Your task to perform on an android device: check google app version Image 0: 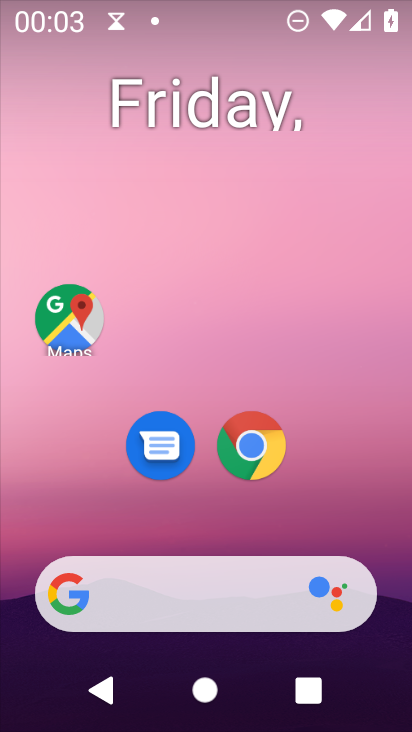
Step 0: drag from (230, 725) to (230, 44)
Your task to perform on an android device: check google app version Image 1: 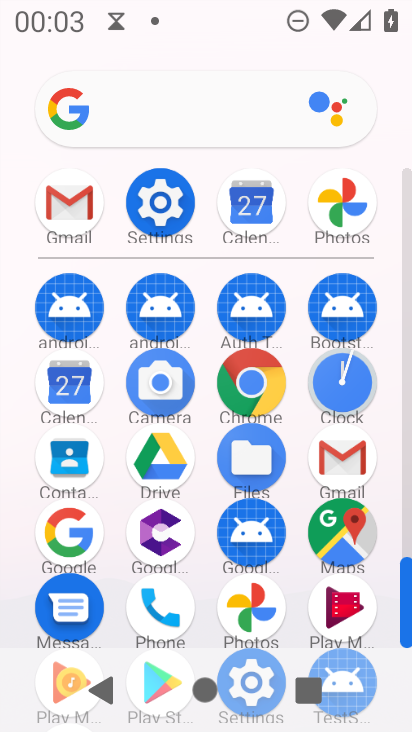
Step 1: click (71, 532)
Your task to perform on an android device: check google app version Image 2: 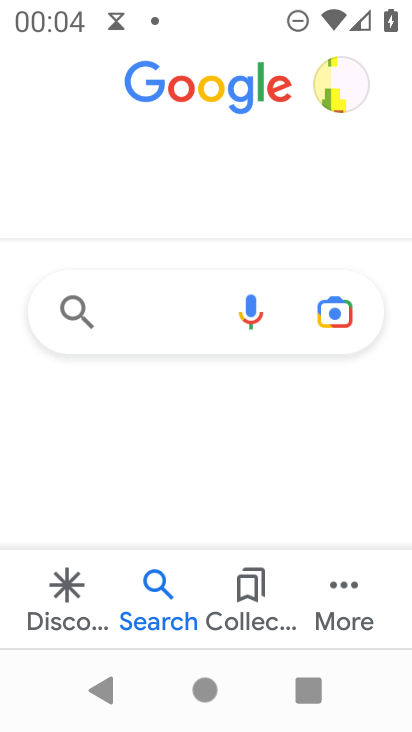
Step 2: click (341, 583)
Your task to perform on an android device: check google app version Image 3: 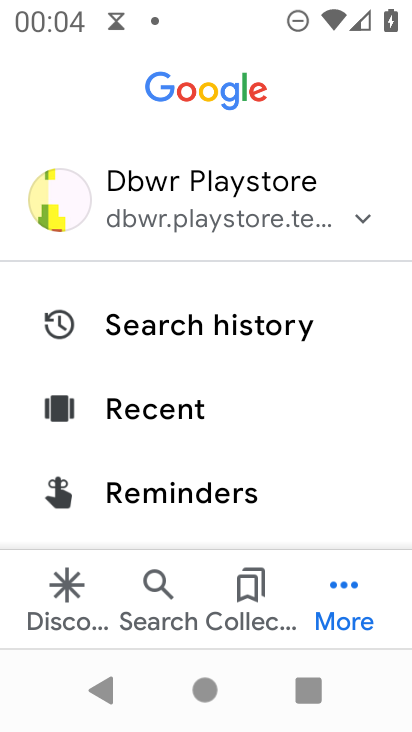
Step 3: drag from (202, 530) to (201, 96)
Your task to perform on an android device: check google app version Image 4: 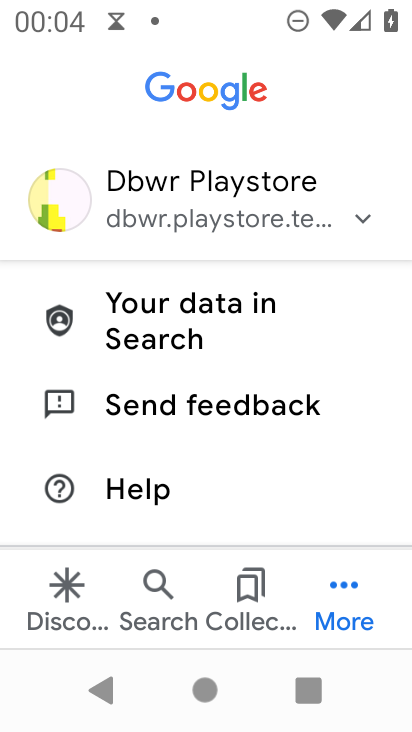
Step 4: drag from (229, 270) to (242, 440)
Your task to perform on an android device: check google app version Image 5: 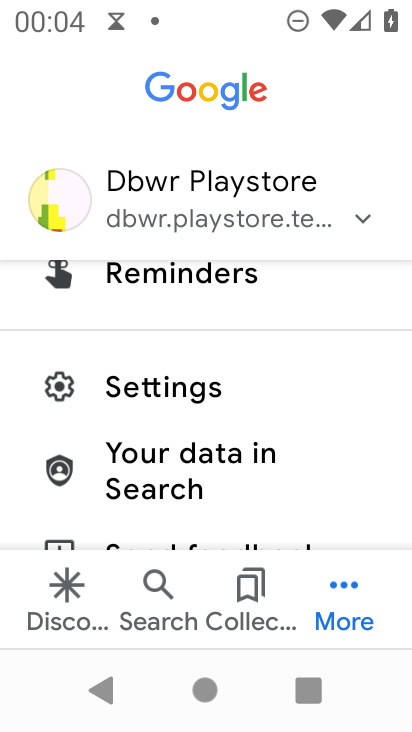
Step 5: click (170, 387)
Your task to perform on an android device: check google app version Image 6: 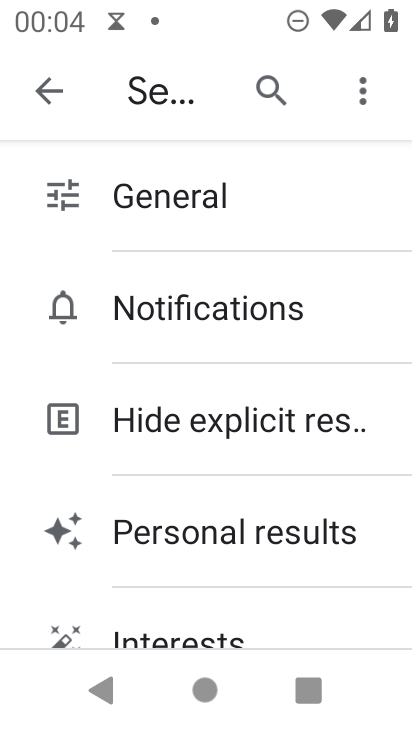
Step 6: drag from (206, 632) to (205, 232)
Your task to perform on an android device: check google app version Image 7: 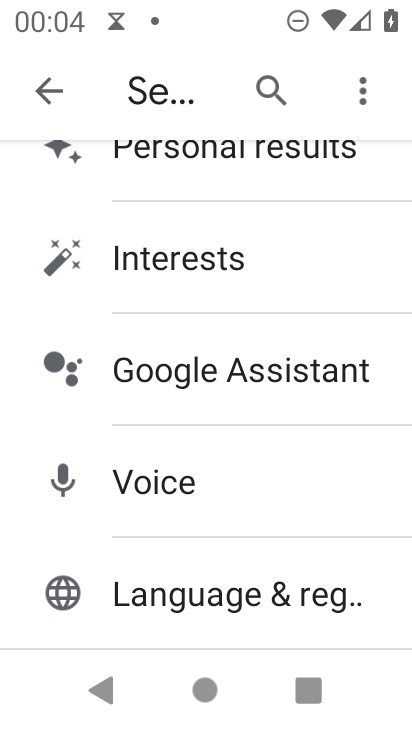
Step 7: drag from (183, 631) to (183, 221)
Your task to perform on an android device: check google app version Image 8: 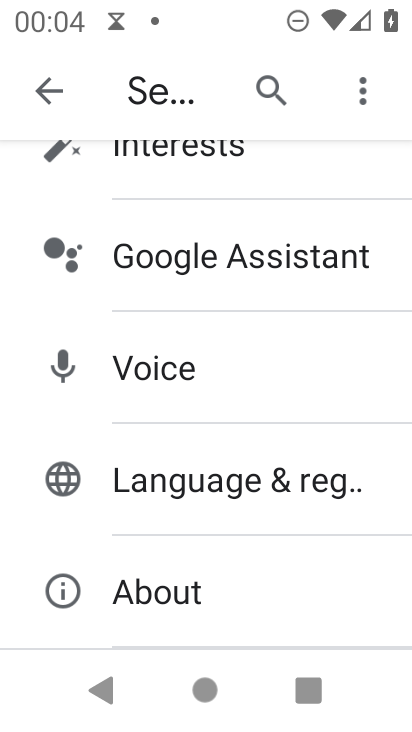
Step 8: click (130, 596)
Your task to perform on an android device: check google app version Image 9: 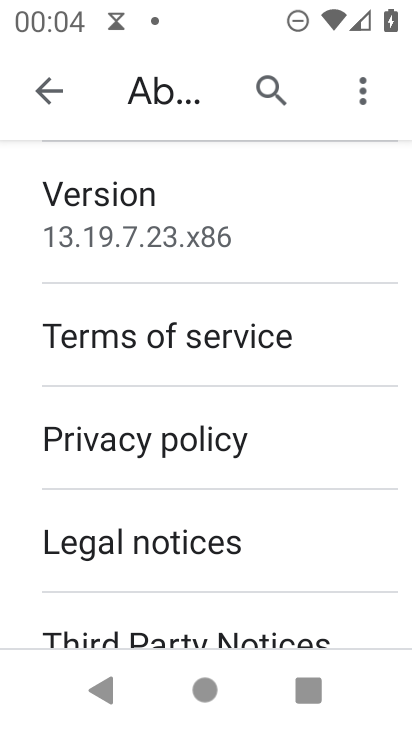
Step 9: task complete